Your task to perform on an android device: Is it going to rain today? Image 0: 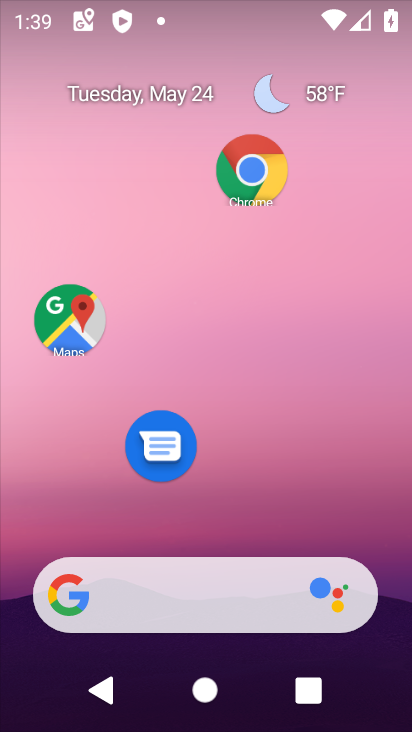
Step 0: drag from (236, 532) to (236, 292)
Your task to perform on an android device: Is it going to rain today? Image 1: 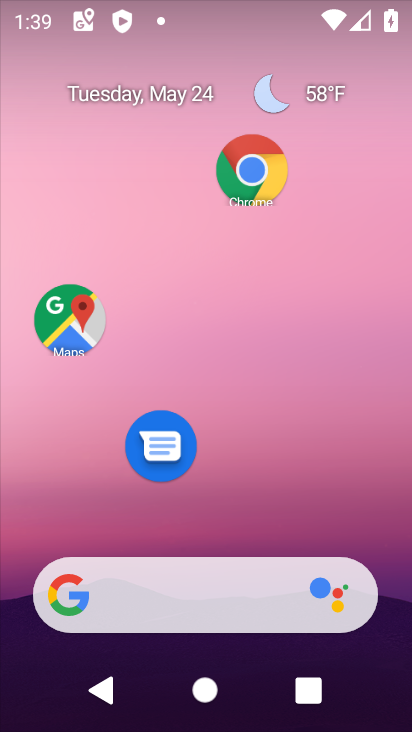
Step 1: drag from (221, 582) to (222, 108)
Your task to perform on an android device: Is it going to rain today? Image 2: 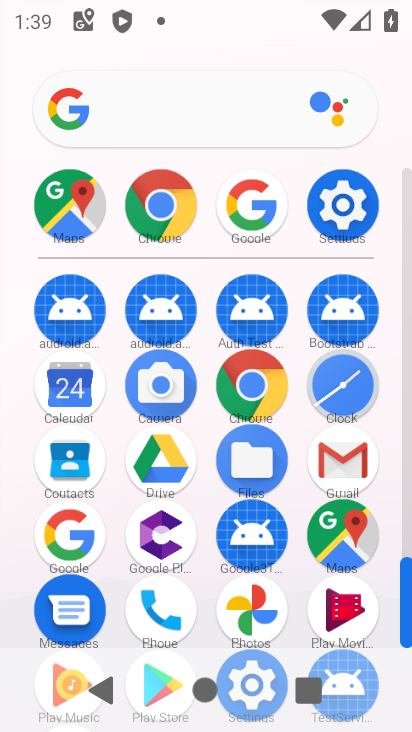
Step 2: click (71, 553)
Your task to perform on an android device: Is it going to rain today? Image 3: 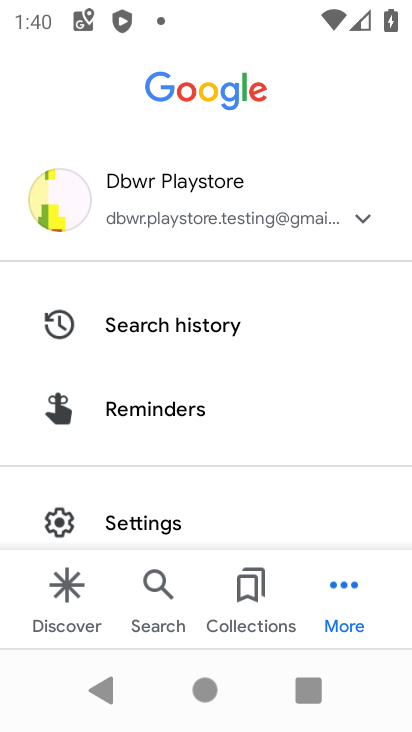
Step 3: drag from (184, 476) to (234, 272)
Your task to perform on an android device: Is it going to rain today? Image 4: 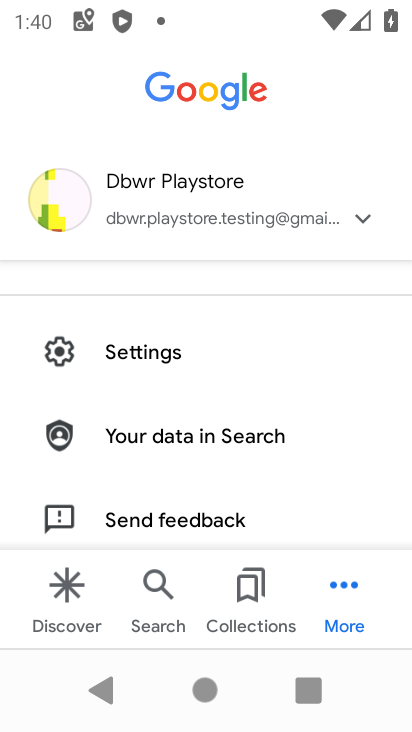
Step 4: click (70, 618)
Your task to perform on an android device: Is it going to rain today? Image 5: 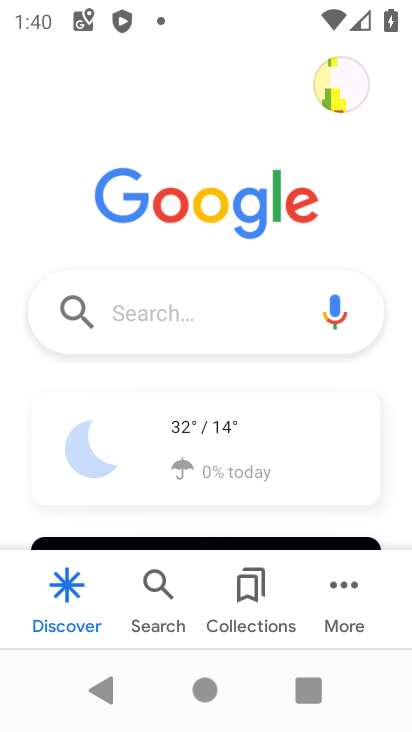
Step 5: click (238, 318)
Your task to perform on an android device: Is it going to rain today? Image 6: 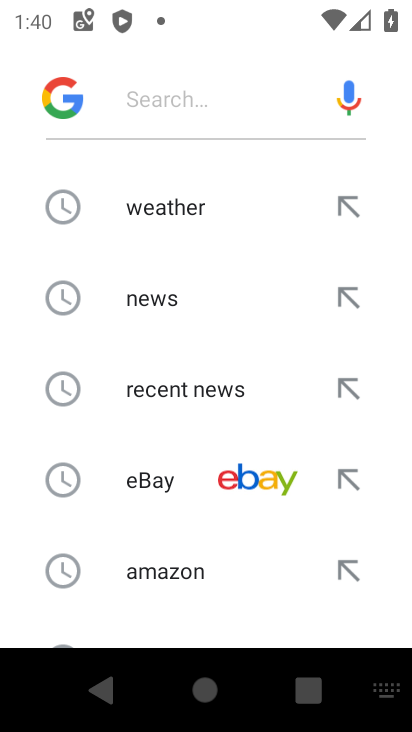
Step 6: click (146, 217)
Your task to perform on an android device: Is it going to rain today? Image 7: 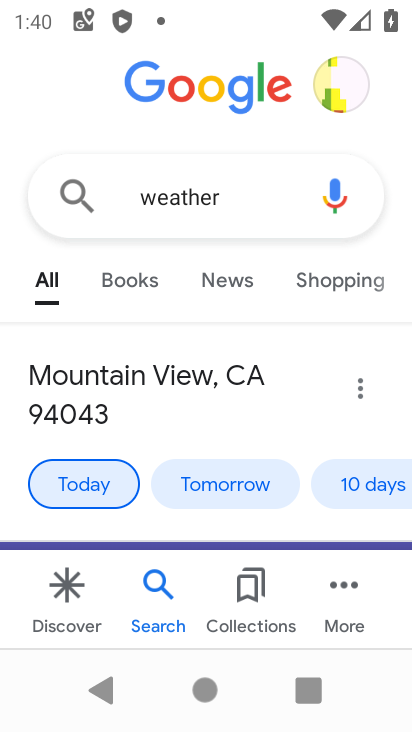
Step 7: task complete